Your task to perform on an android device: add a contact in the contacts app Image 0: 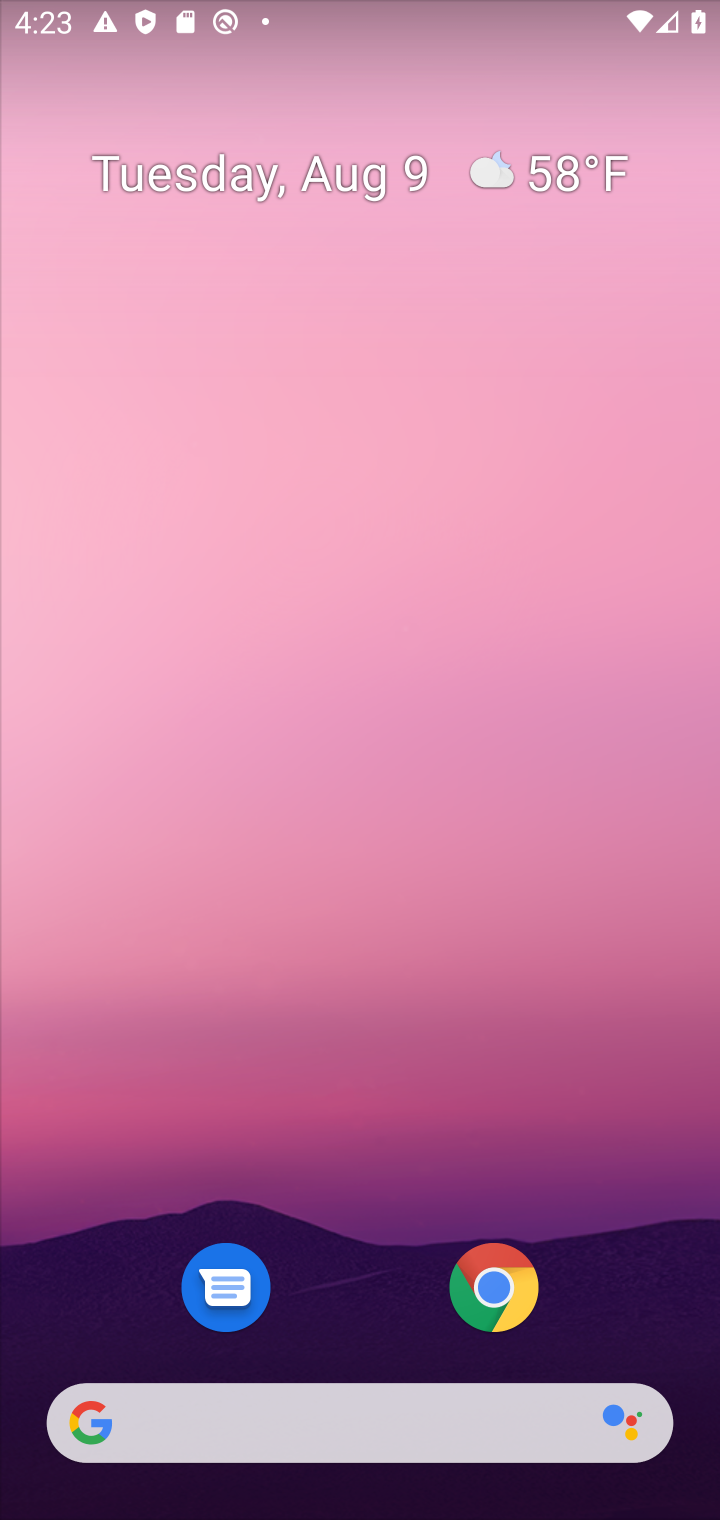
Step 0: drag from (365, 1126) to (502, 377)
Your task to perform on an android device: add a contact in the contacts app Image 1: 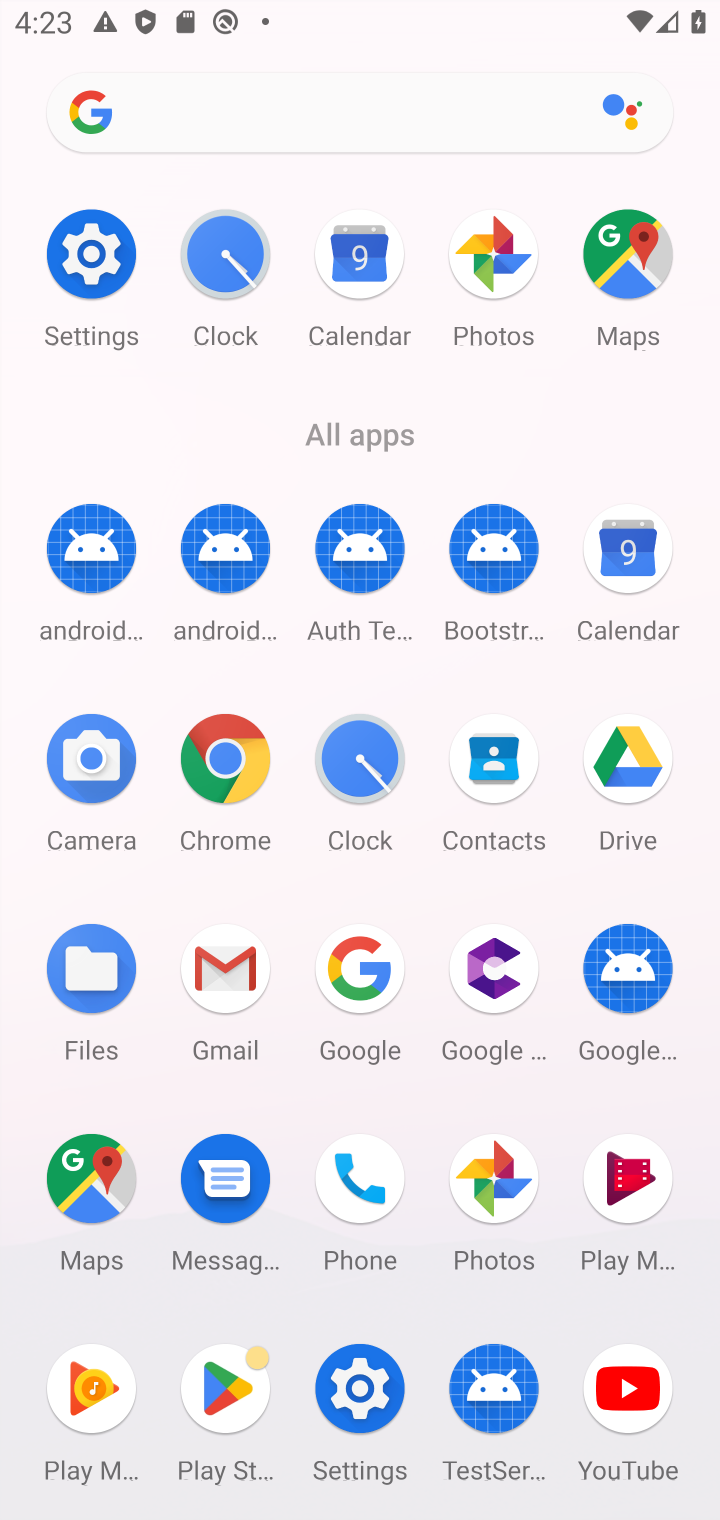
Step 1: drag from (485, 1255) to (512, 781)
Your task to perform on an android device: add a contact in the contacts app Image 2: 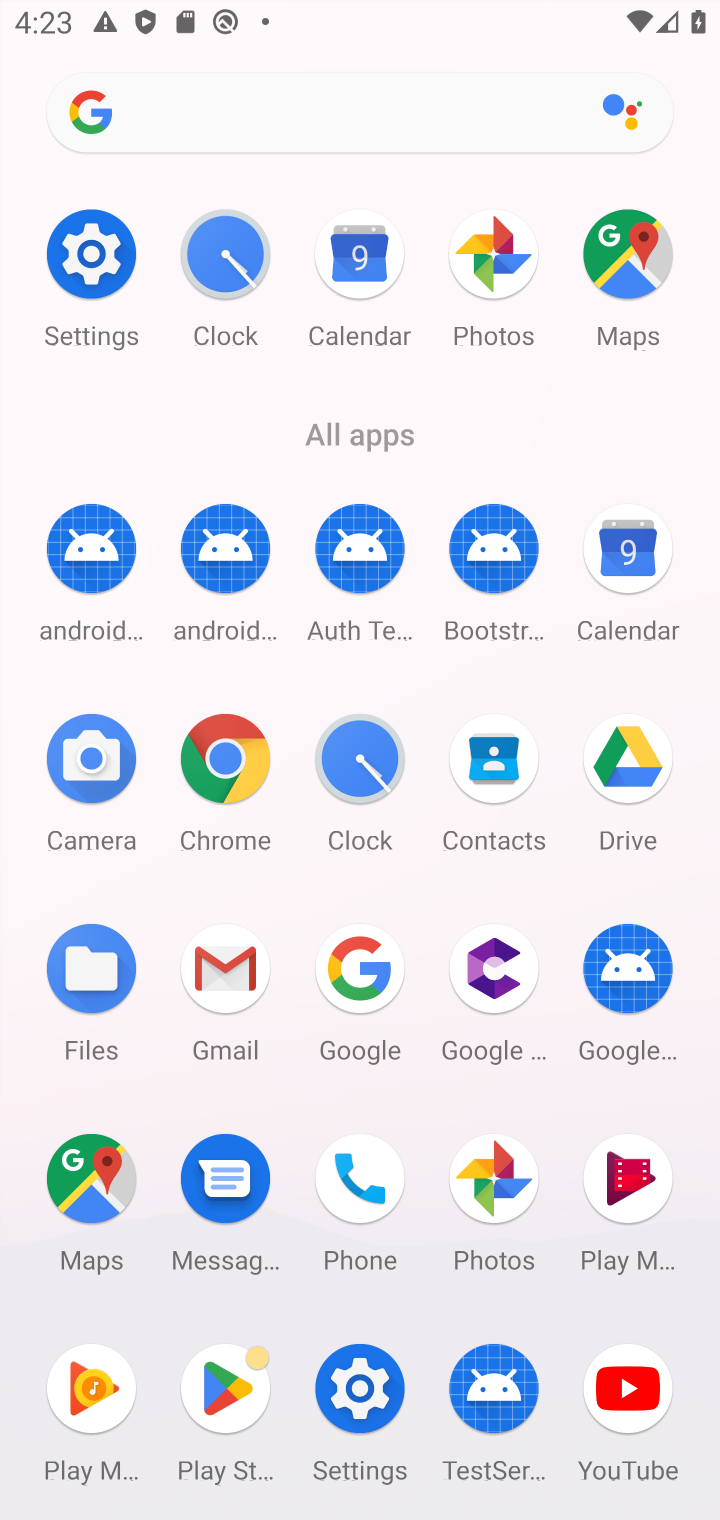
Step 2: drag from (562, 1072) to (607, 552)
Your task to perform on an android device: add a contact in the contacts app Image 3: 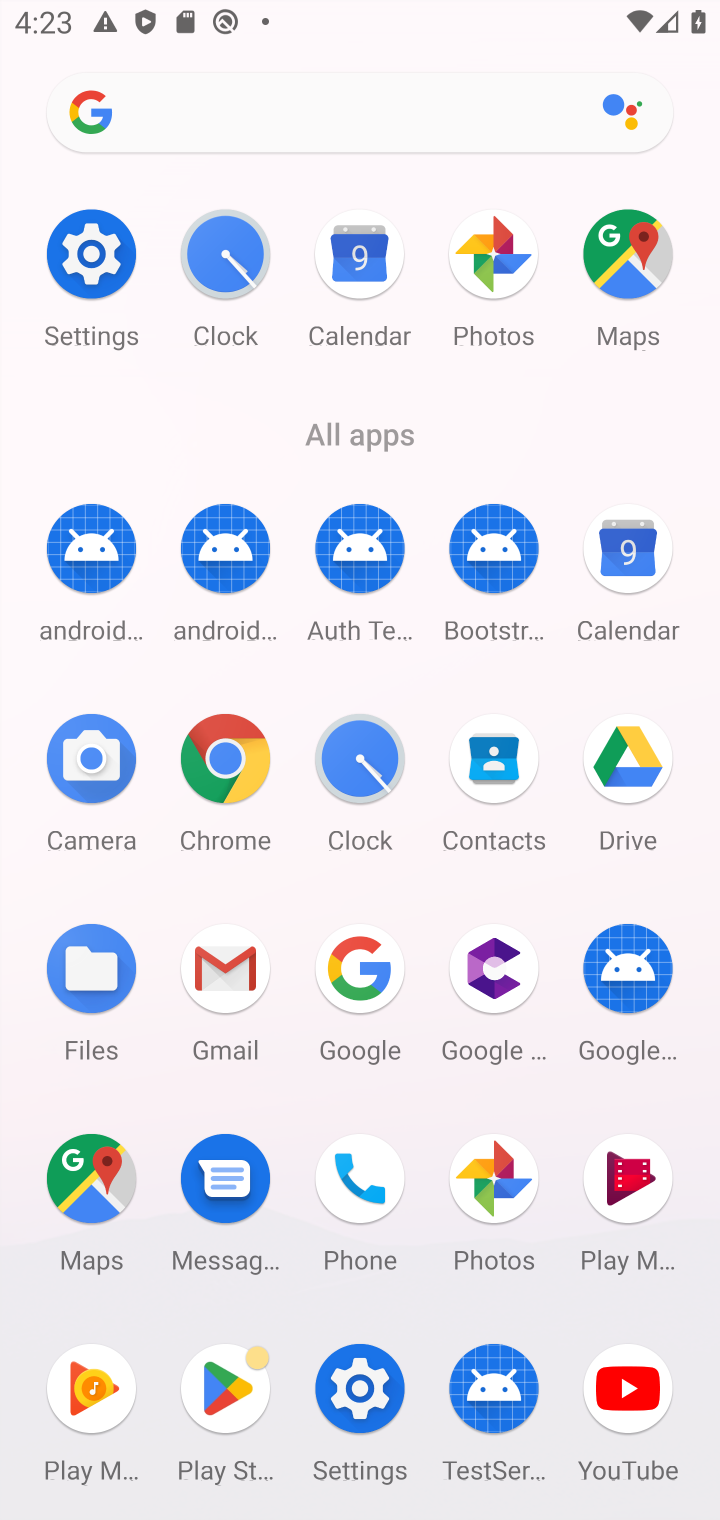
Step 3: drag from (370, 863) to (434, 415)
Your task to perform on an android device: add a contact in the contacts app Image 4: 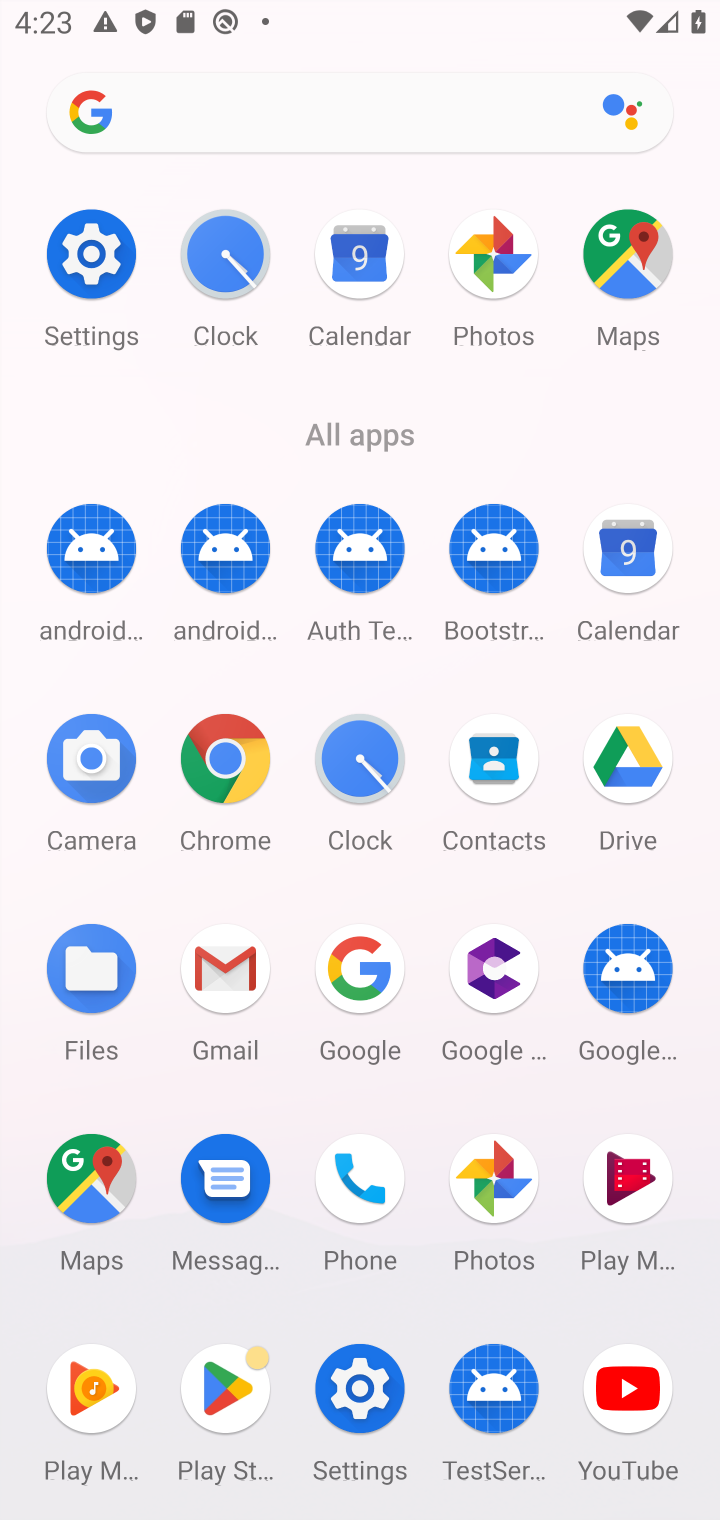
Step 4: click (476, 765)
Your task to perform on an android device: add a contact in the contacts app Image 5: 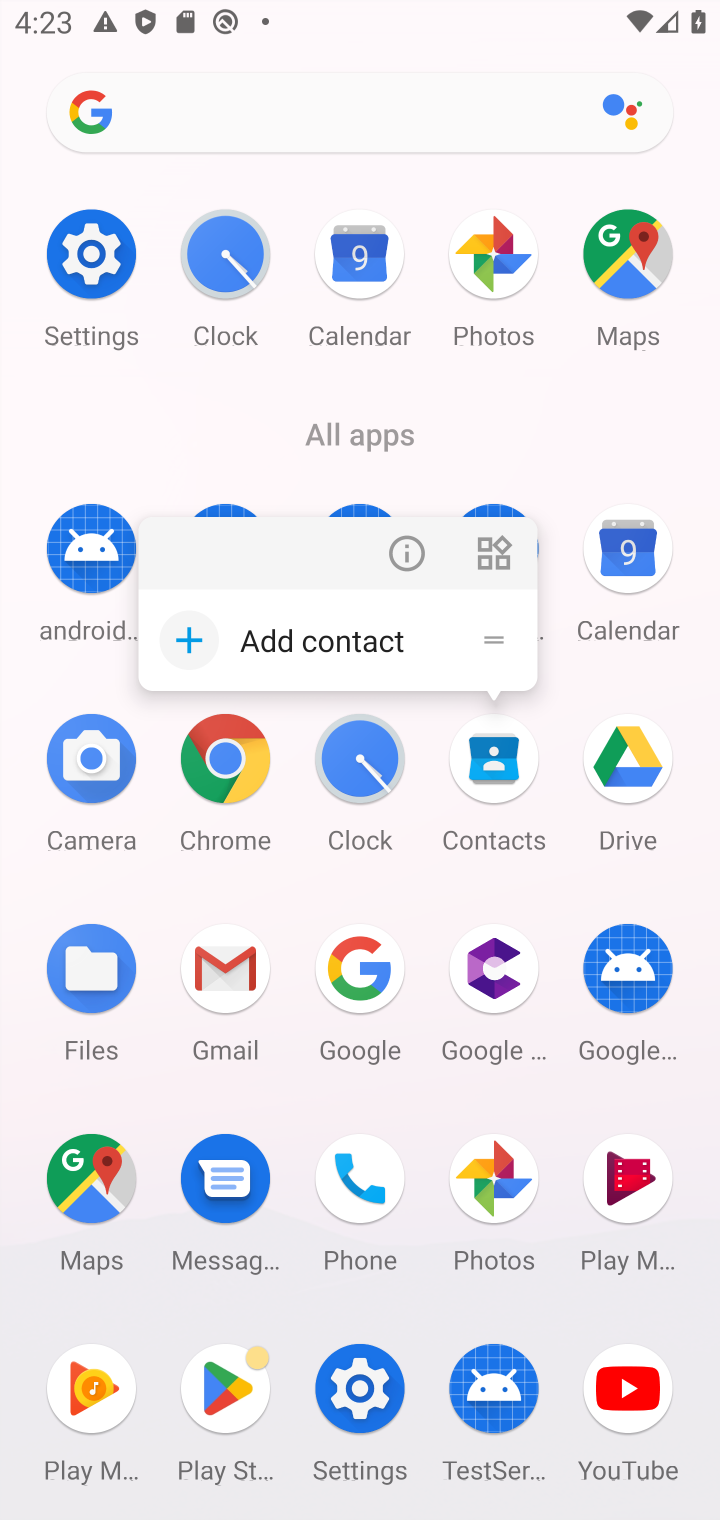
Step 5: click (365, 645)
Your task to perform on an android device: add a contact in the contacts app Image 6: 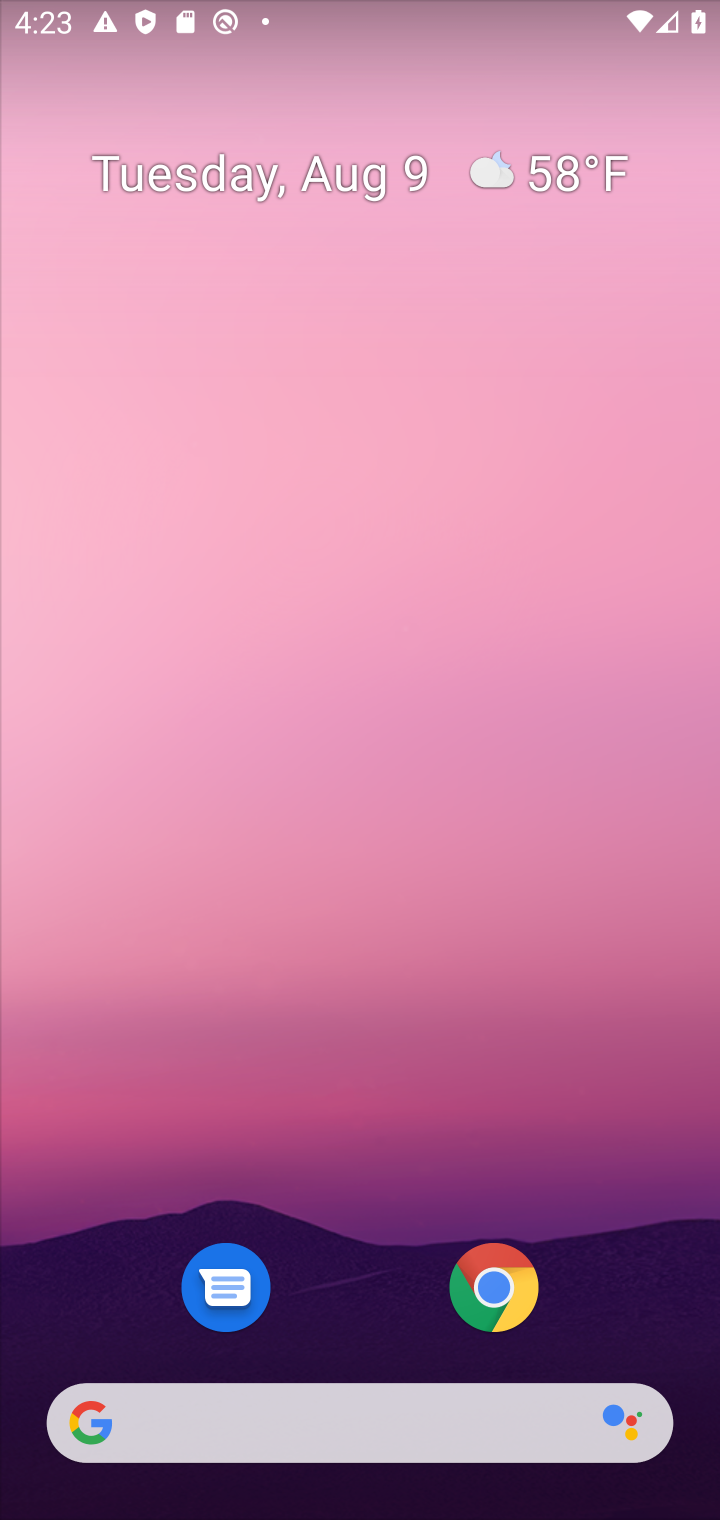
Step 6: task complete